Your task to perform on an android device: Open internet settings Image 0: 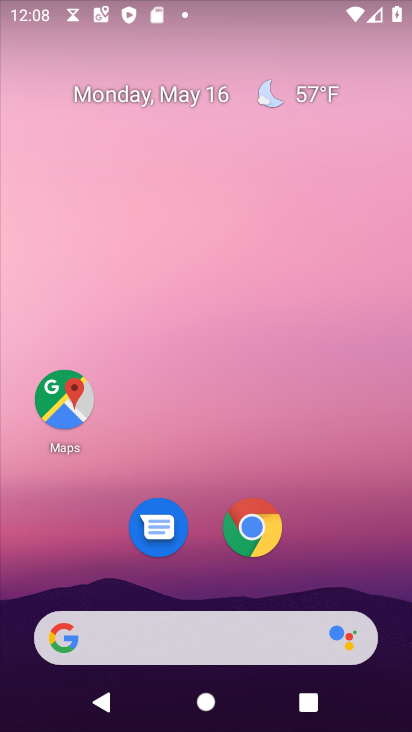
Step 0: drag from (209, 579) to (276, 288)
Your task to perform on an android device: Open internet settings Image 1: 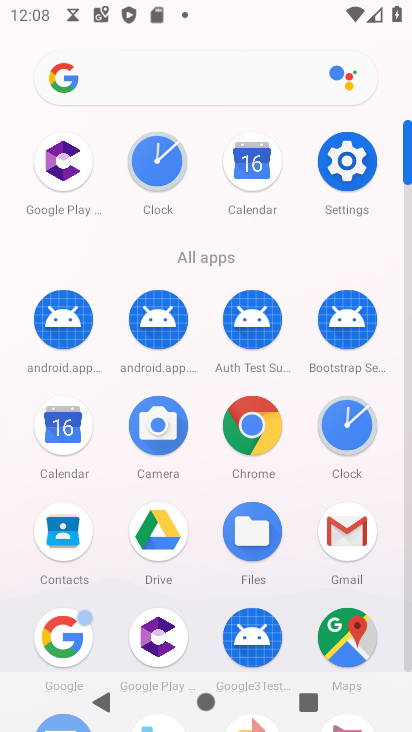
Step 1: click (353, 167)
Your task to perform on an android device: Open internet settings Image 2: 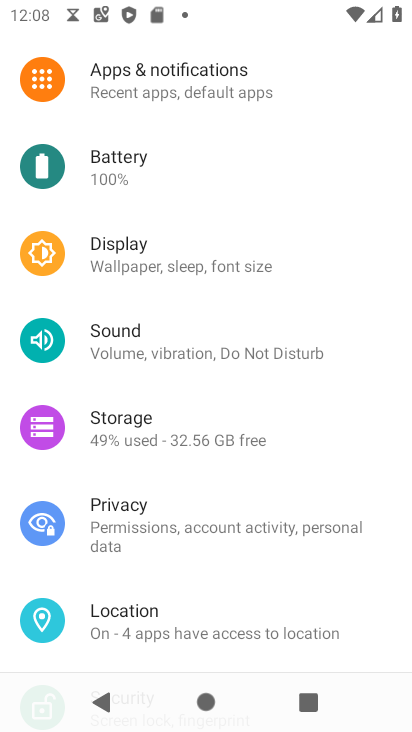
Step 2: drag from (231, 186) to (206, 467)
Your task to perform on an android device: Open internet settings Image 3: 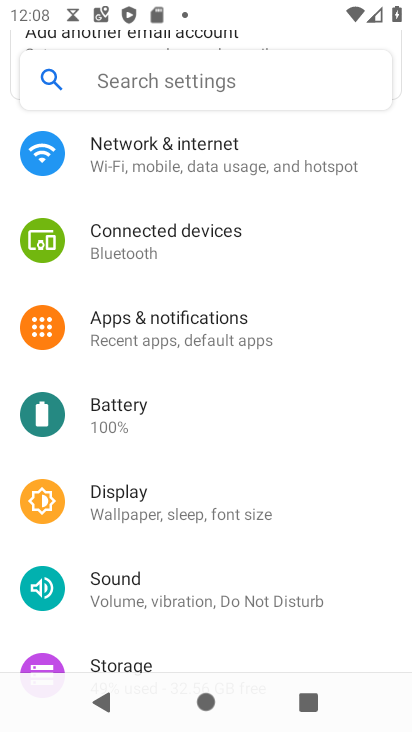
Step 3: drag from (201, 215) to (193, 343)
Your task to perform on an android device: Open internet settings Image 4: 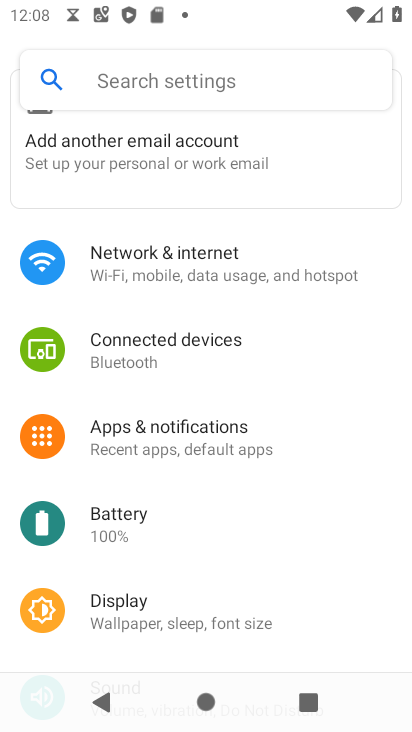
Step 4: click (174, 265)
Your task to perform on an android device: Open internet settings Image 5: 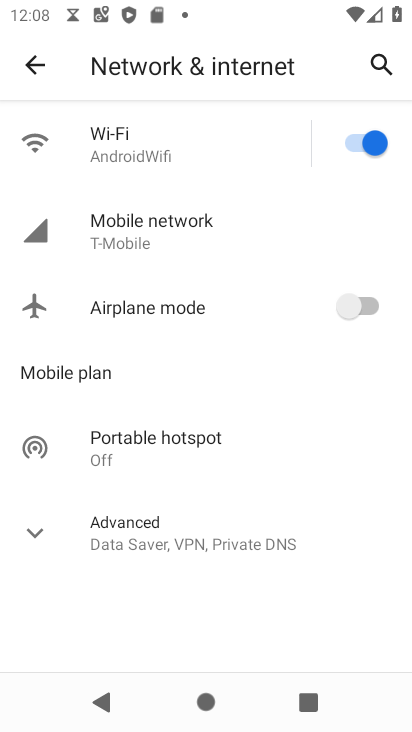
Step 5: task complete